Your task to perform on an android device: Go to Yahoo.com Image 0: 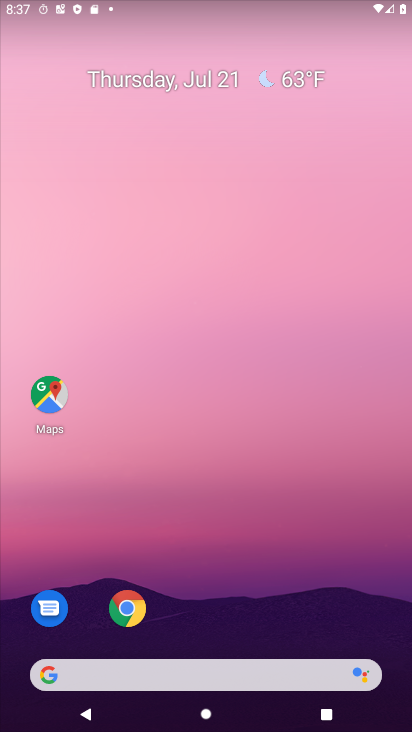
Step 0: click (121, 609)
Your task to perform on an android device: Go to Yahoo.com Image 1: 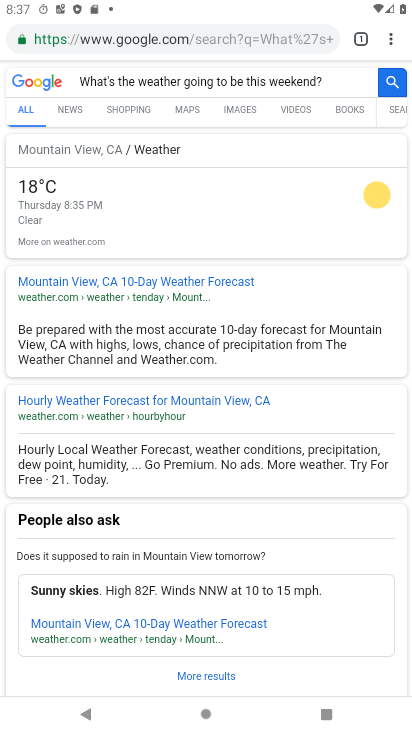
Step 1: click (105, 40)
Your task to perform on an android device: Go to Yahoo.com Image 2: 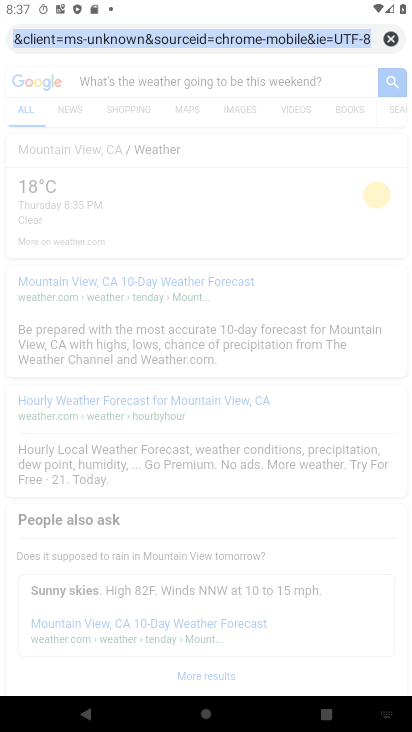
Step 2: type "Yahoo.com"
Your task to perform on an android device: Go to Yahoo.com Image 3: 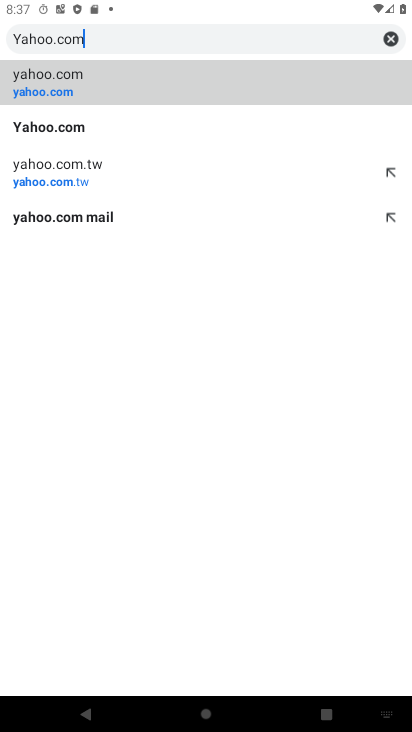
Step 3: click (244, 84)
Your task to perform on an android device: Go to Yahoo.com Image 4: 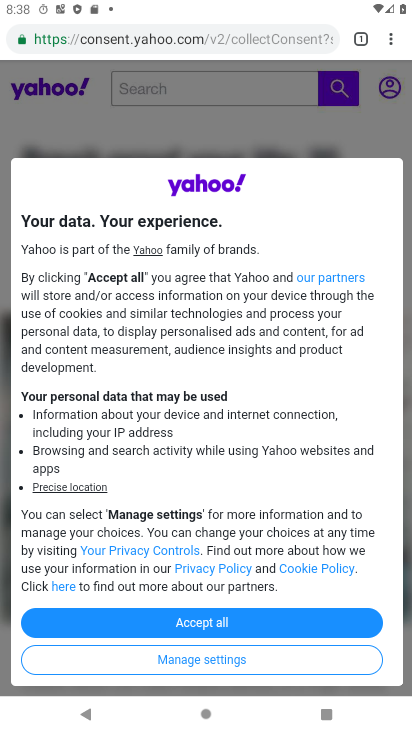
Step 4: task complete